Your task to perform on an android device: Show the shopping cart on costco.com. Search for beats solo 3 on costco.com, select the first entry, and add it to the cart. Image 0: 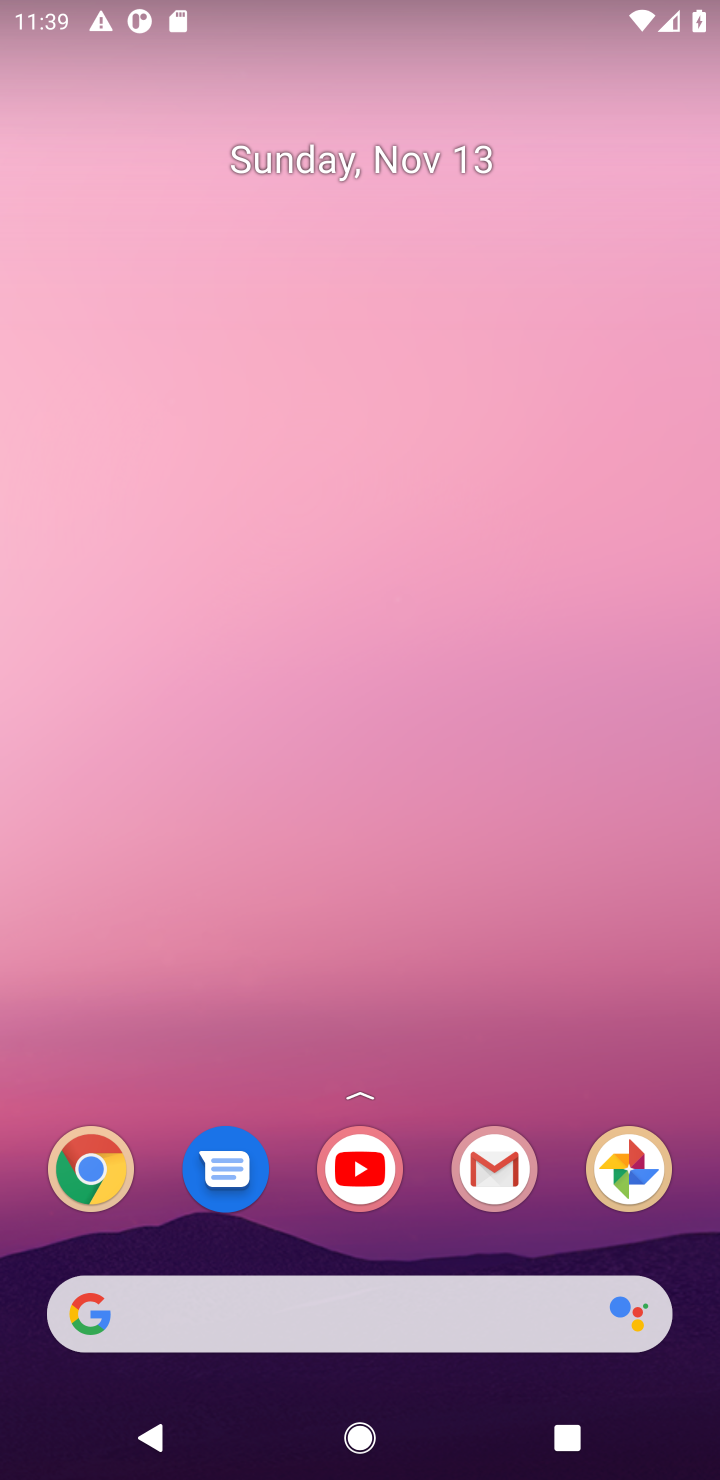
Step 0: drag from (427, 1267) to (410, 50)
Your task to perform on an android device: Show the shopping cart on costco.com. Search for beats solo 3 on costco.com, select the first entry, and add it to the cart. Image 1: 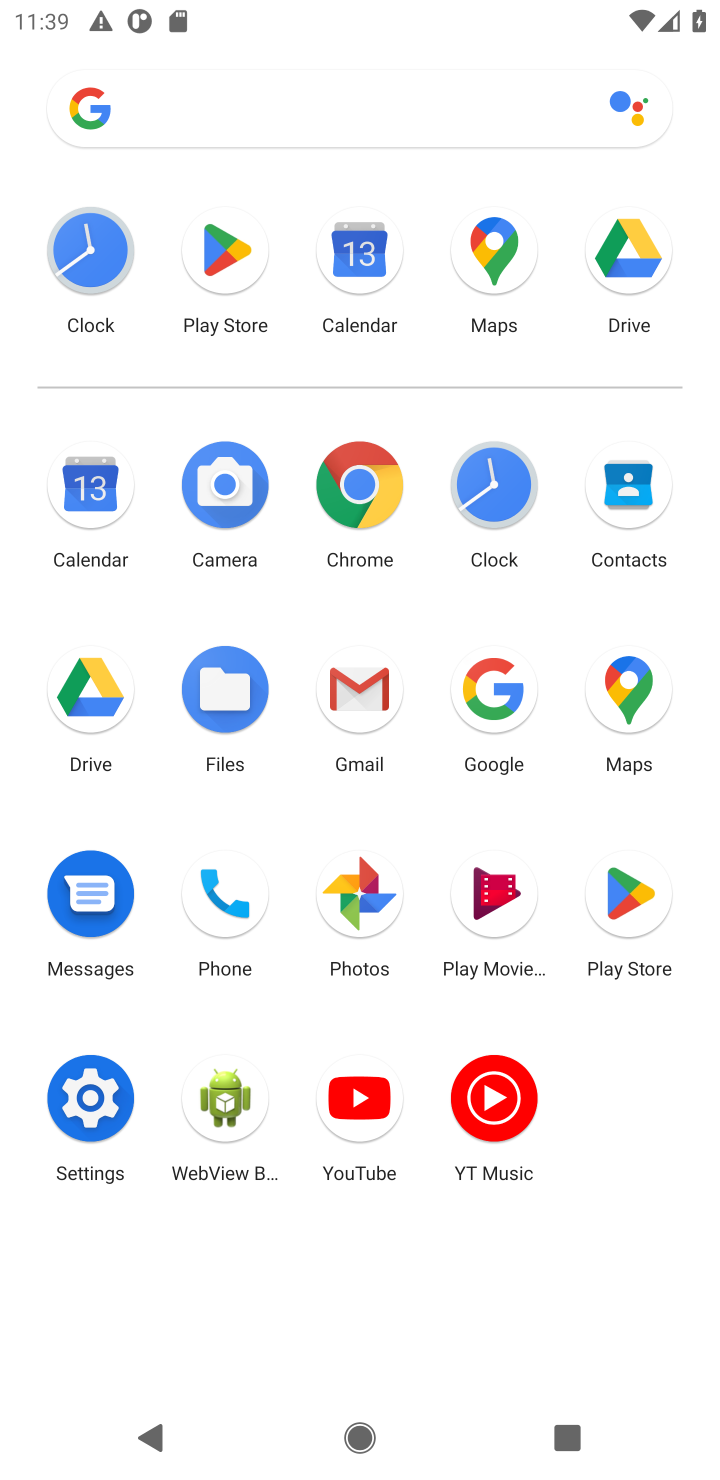
Step 1: click (353, 494)
Your task to perform on an android device: Show the shopping cart on costco.com. Search for beats solo 3 on costco.com, select the first entry, and add it to the cart. Image 2: 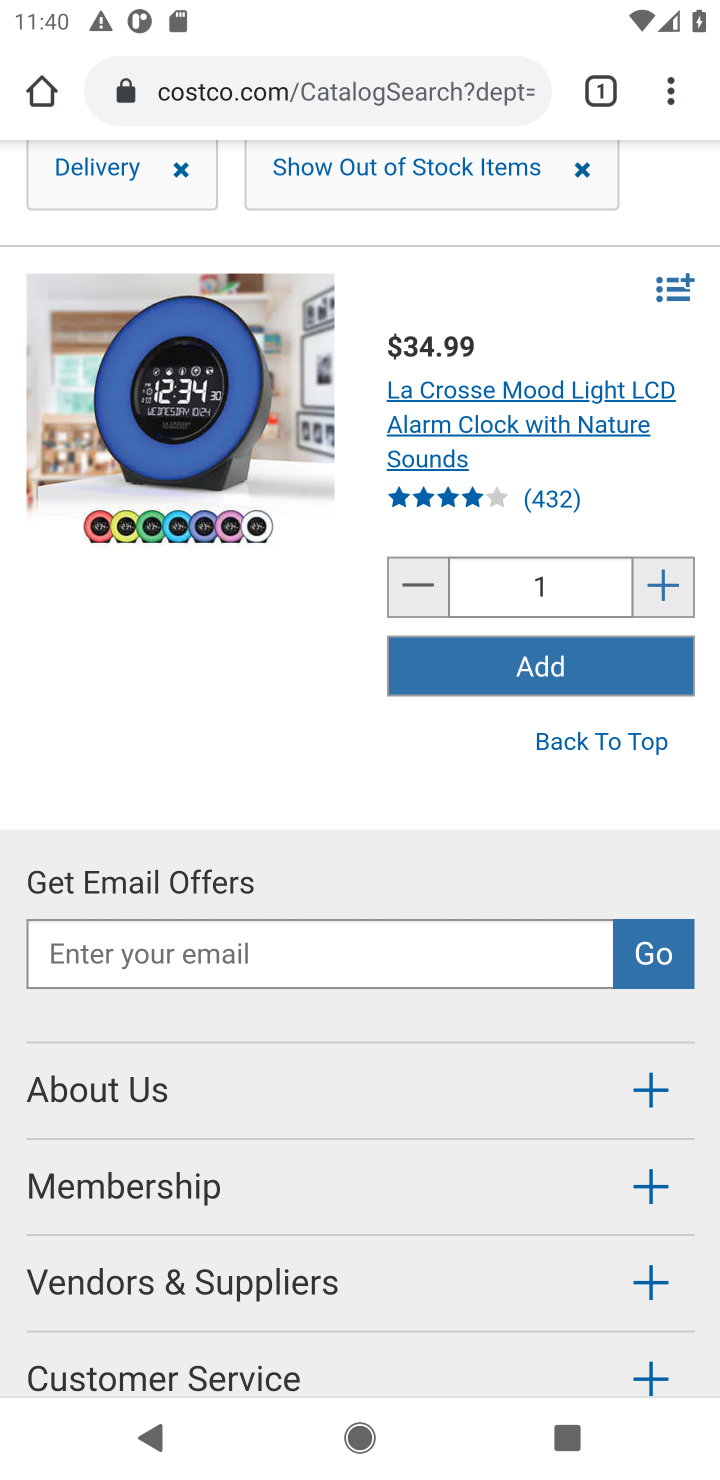
Step 2: drag from (509, 378) to (440, 1009)
Your task to perform on an android device: Show the shopping cart on costco.com. Search for beats solo 3 on costco.com, select the first entry, and add it to the cart. Image 3: 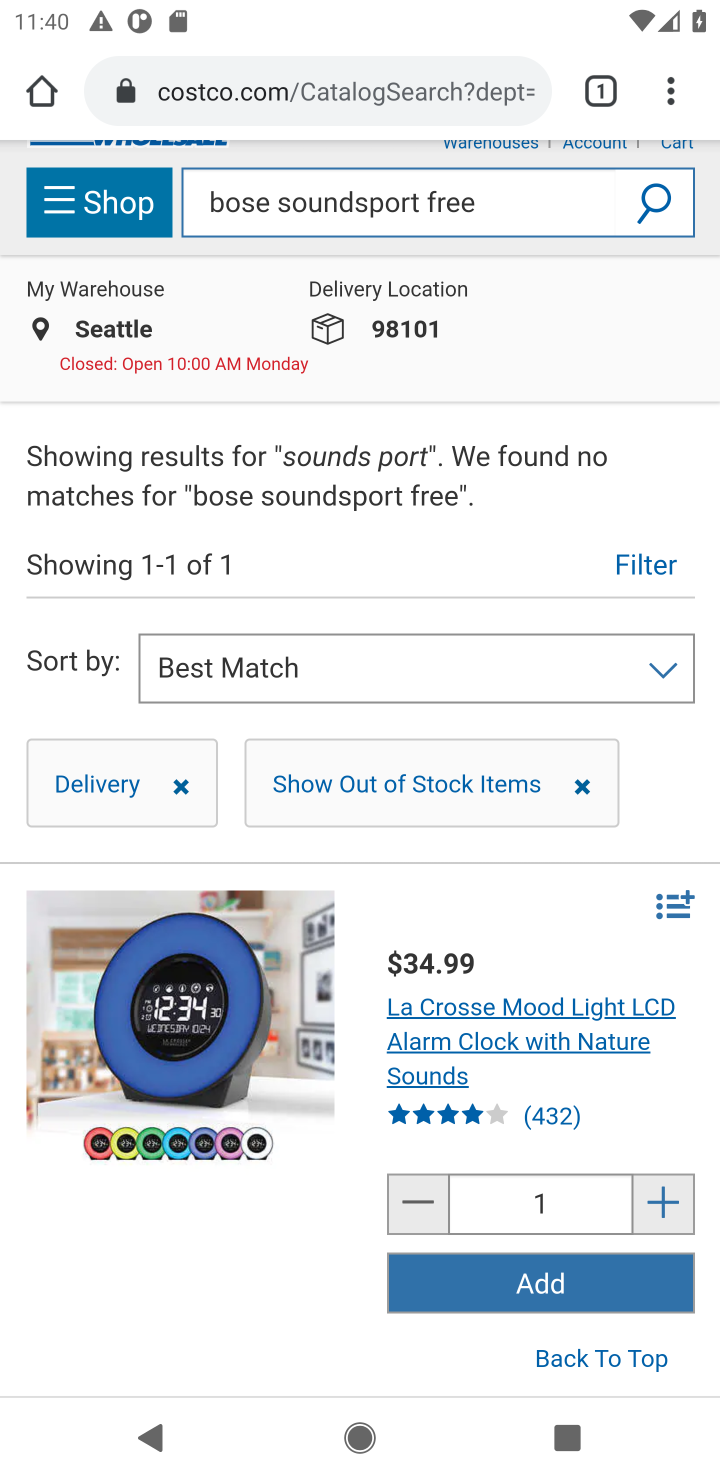
Step 3: drag from (596, 400) to (511, 849)
Your task to perform on an android device: Show the shopping cart on costco.com. Search for beats solo 3 on costco.com, select the first entry, and add it to the cart. Image 4: 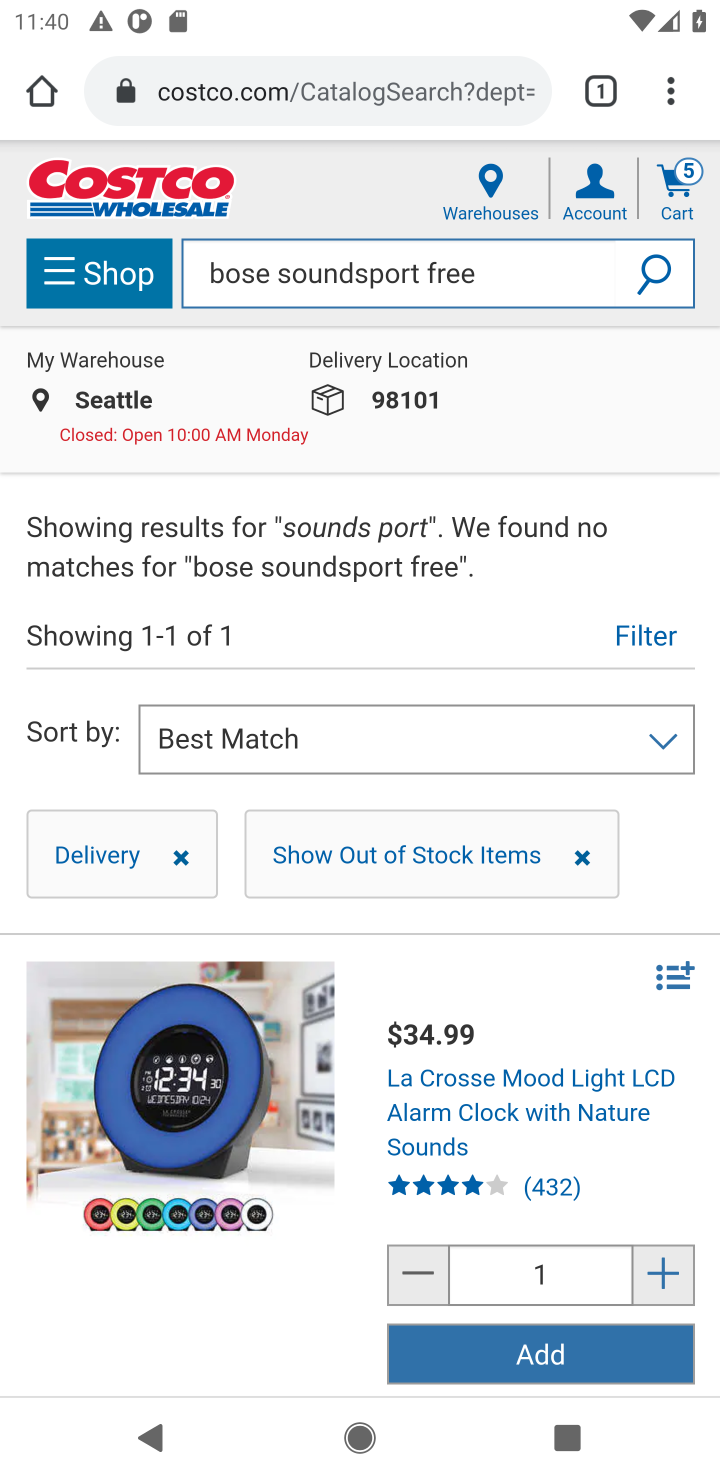
Step 4: click (675, 174)
Your task to perform on an android device: Show the shopping cart on costco.com. Search for beats solo 3 on costco.com, select the first entry, and add it to the cart. Image 5: 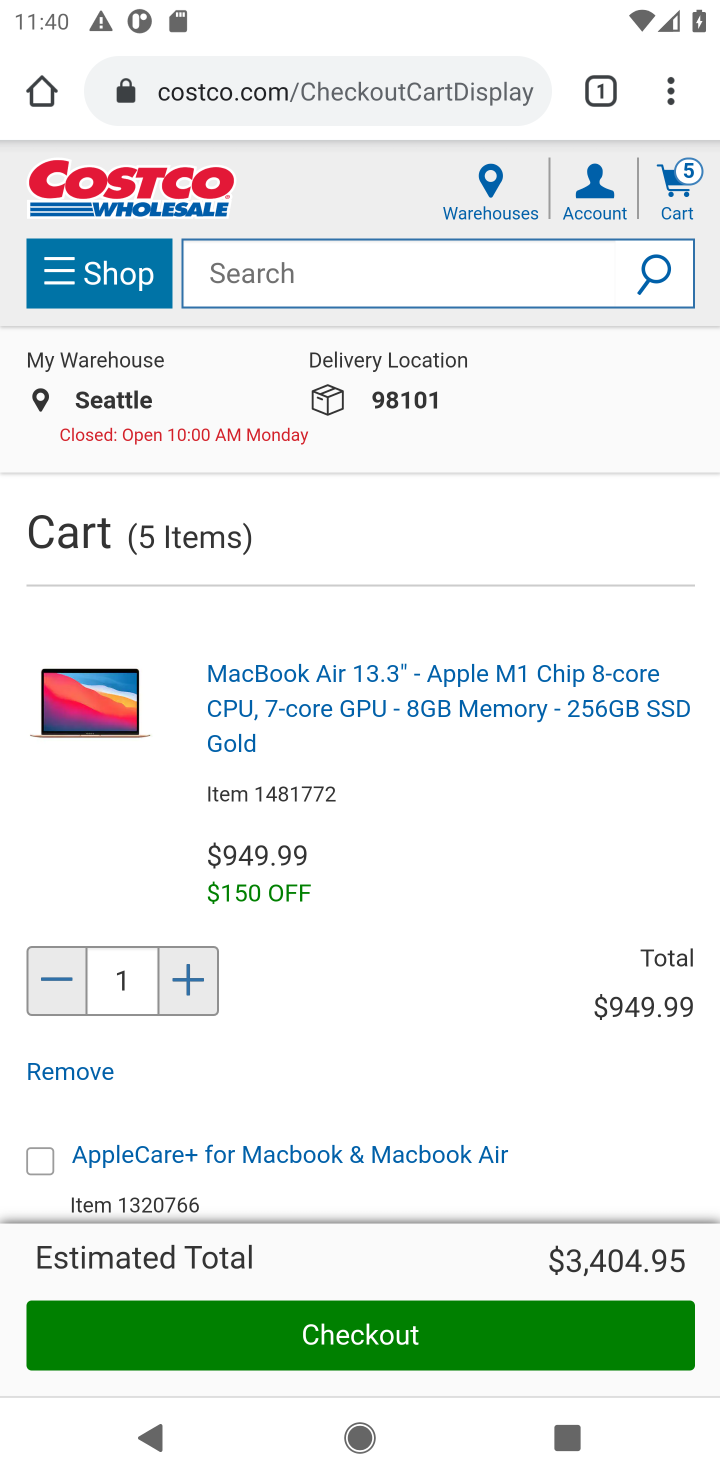
Step 5: click (677, 175)
Your task to perform on an android device: Show the shopping cart on costco.com. Search for beats solo 3 on costco.com, select the first entry, and add it to the cart. Image 6: 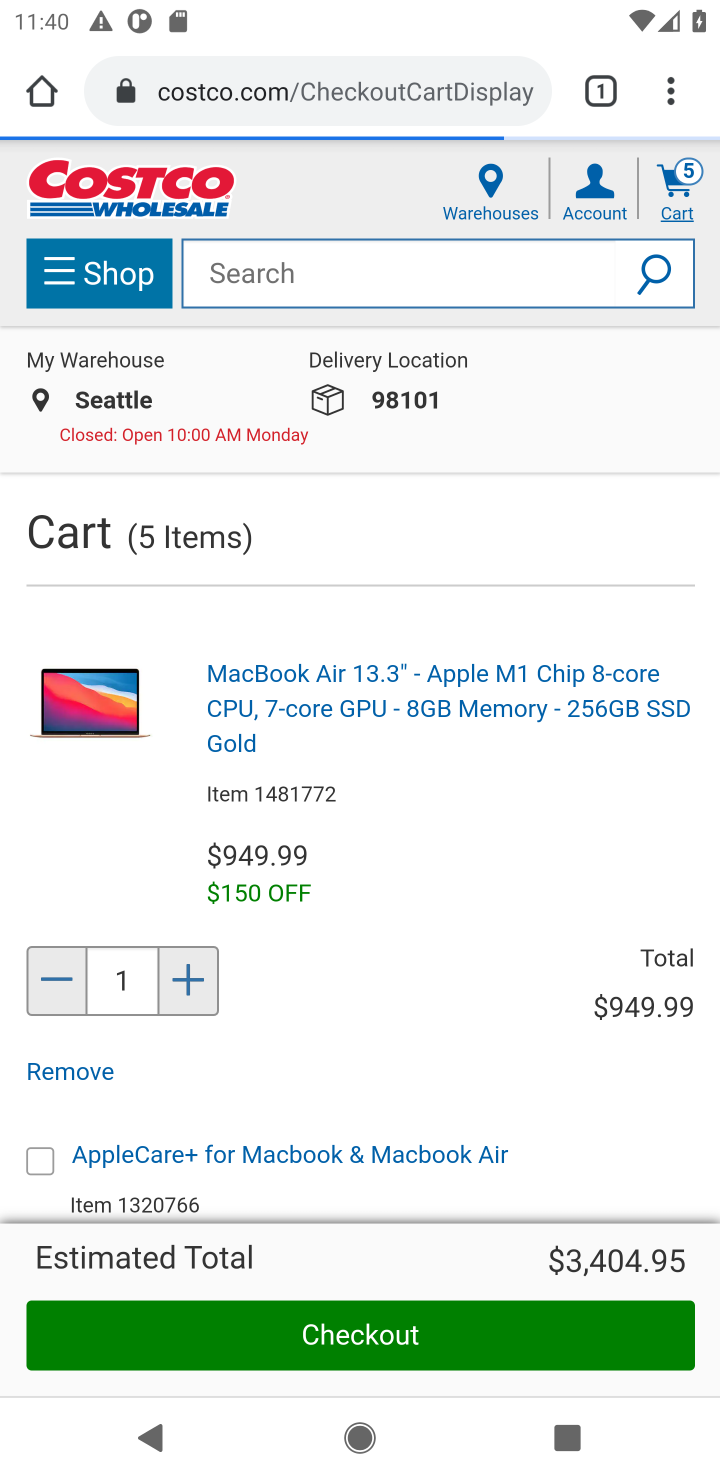
Step 6: click (551, 265)
Your task to perform on an android device: Show the shopping cart on costco.com. Search for beats solo 3 on costco.com, select the first entry, and add it to the cart. Image 7: 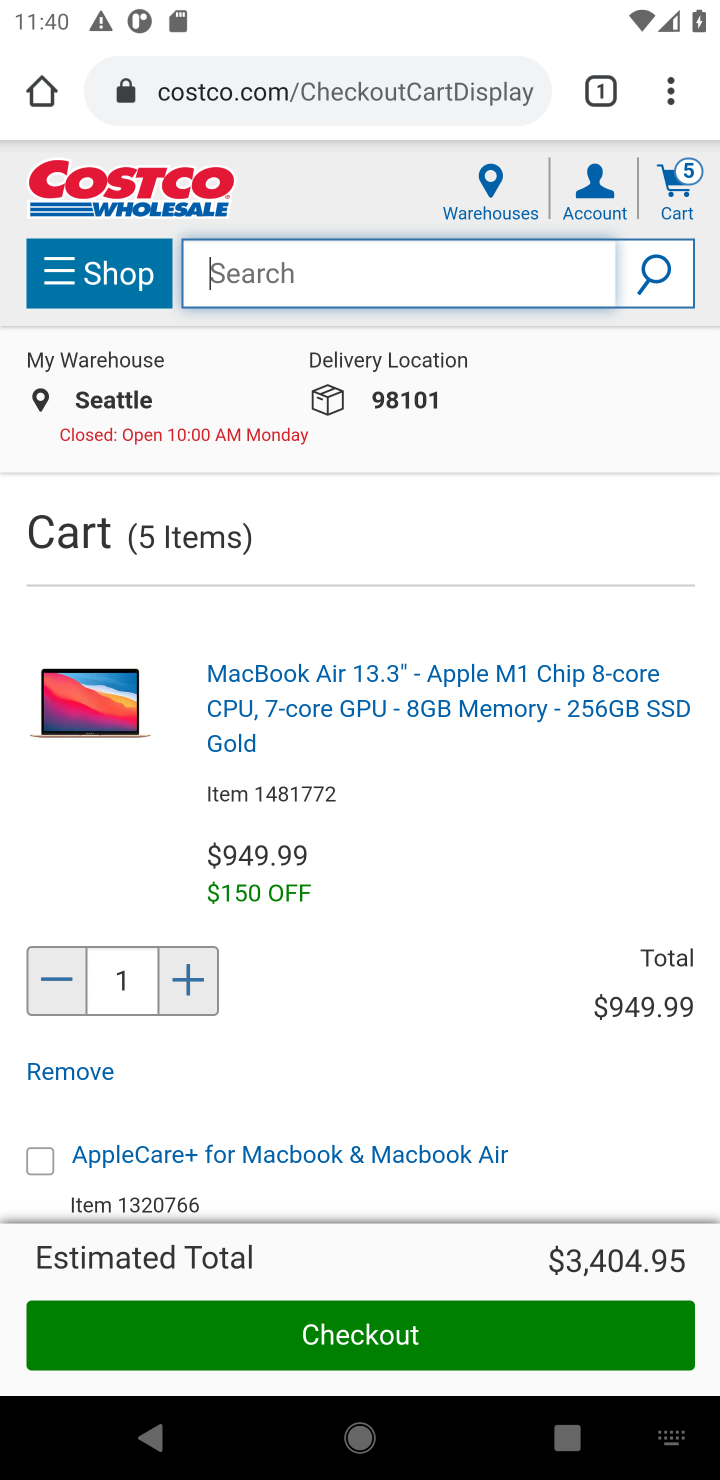
Step 7: type "beats solo 3"
Your task to perform on an android device: Show the shopping cart on costco.com. Search for beats solo 3 on costco.com, select the first entry, and add it to the cart. Image 8: 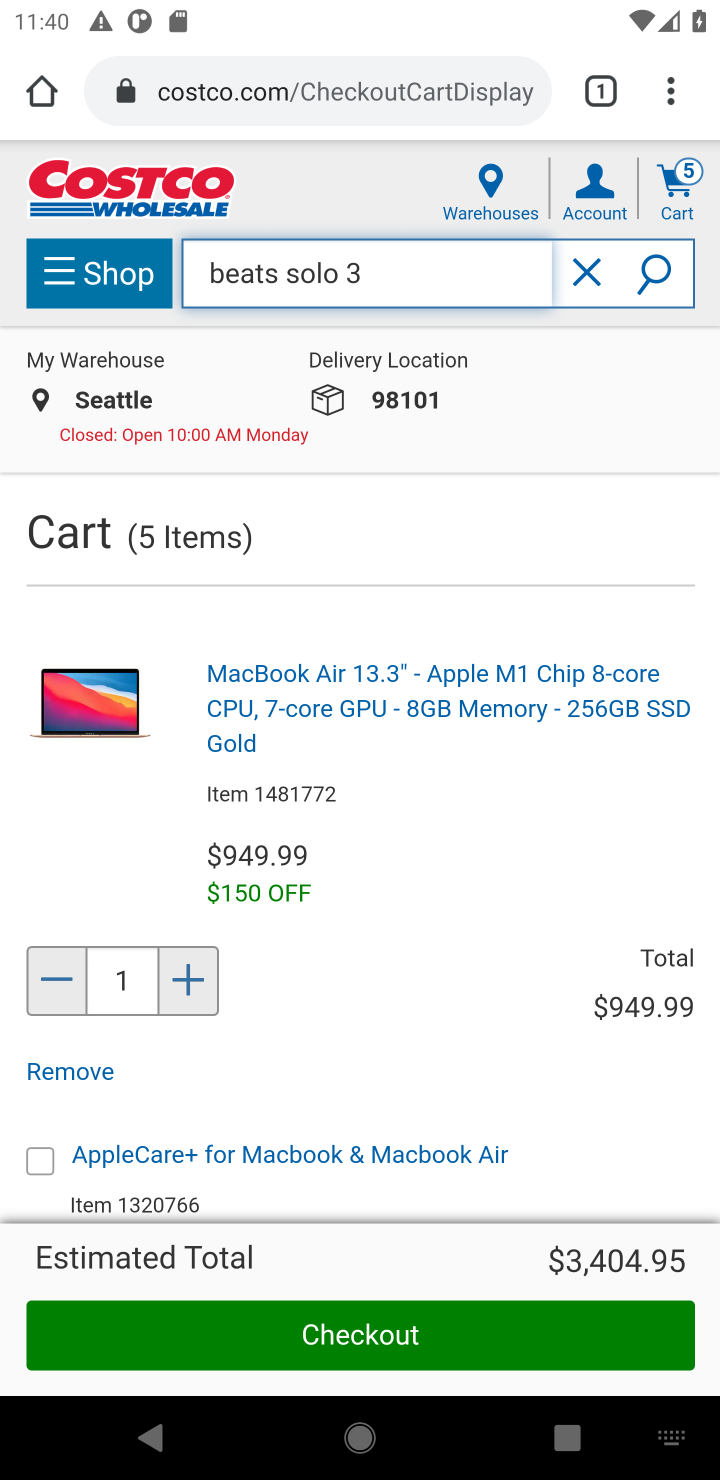
Step 8: press enter
Your task to perform on an android device: Show the shopping cart on costco.com. Search for beats solo 3 on costco.com, select the first entry, and add it to the cart. Image 9: 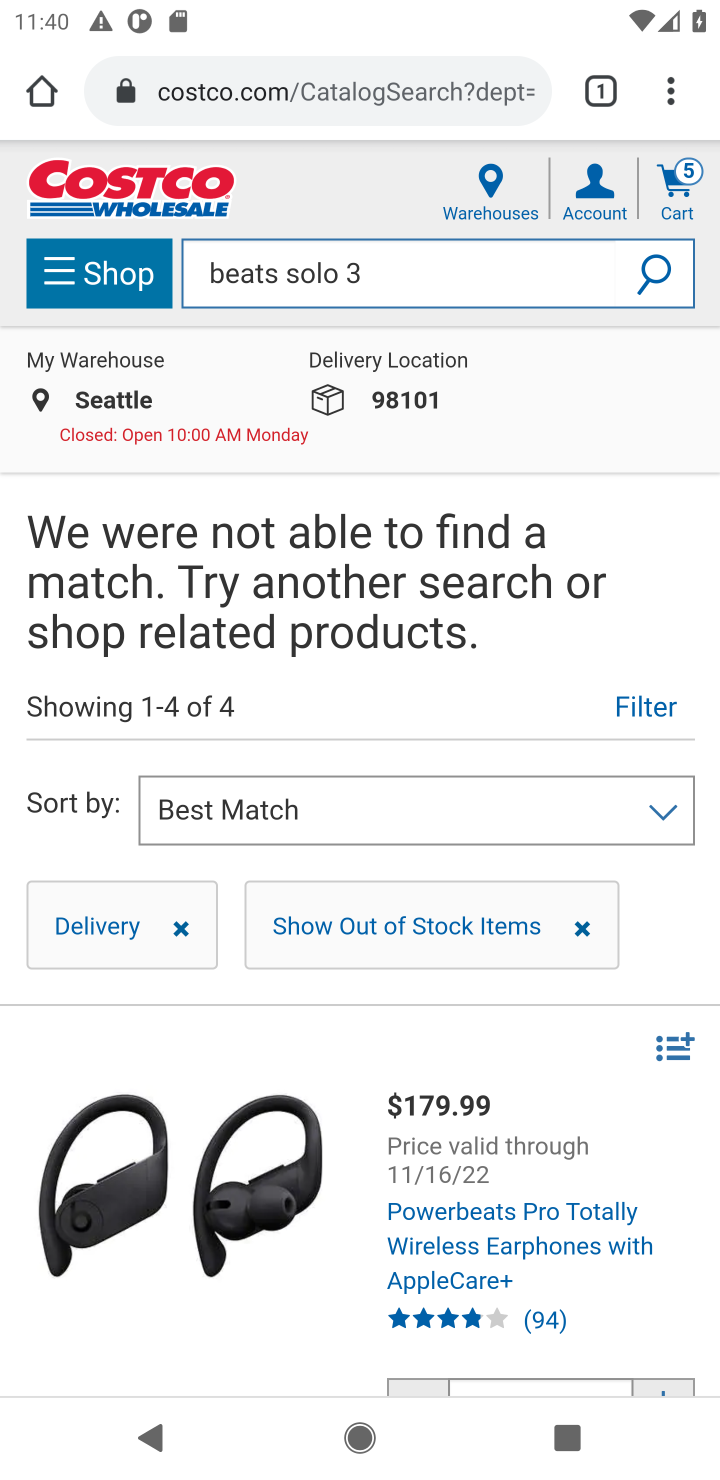
Step 9: task complete